Your task to perform on an android device: toggle sleep mode Image 0: 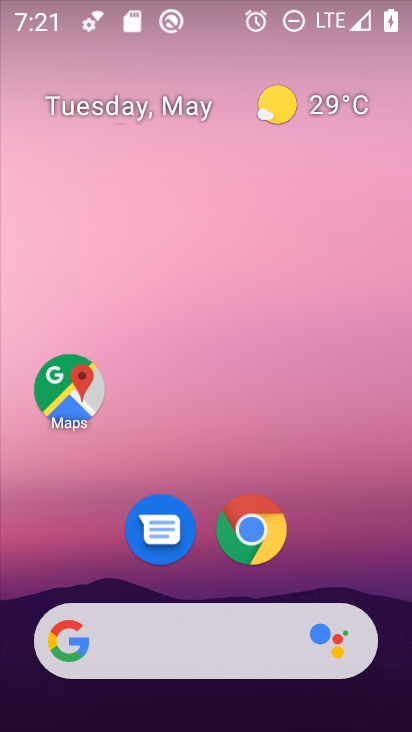
Step 0: drag from (379, 622) to (233, 49)
Your task to perform on an android device: toggle sleep mode Image 1: 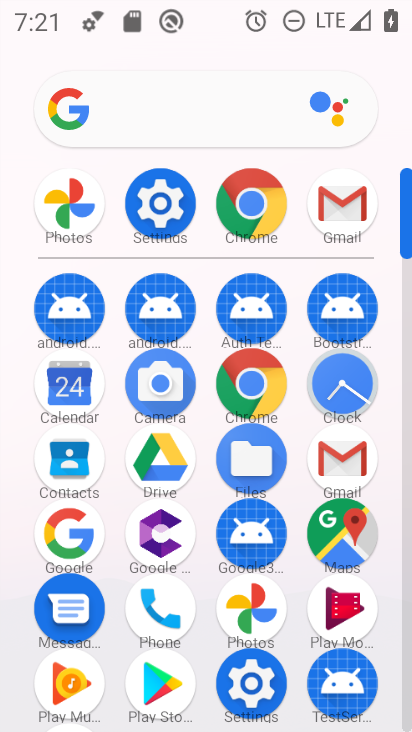
Step 1: click (180, 193)
Your task to perform on an android device: toggle sleep mode Image 2: 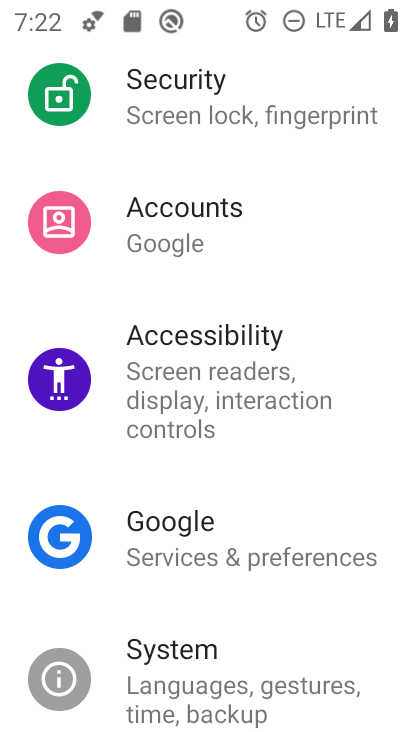
Step 2: task complete